Your task to perform on an android device: search for starred emails in the gmail app Image 0: 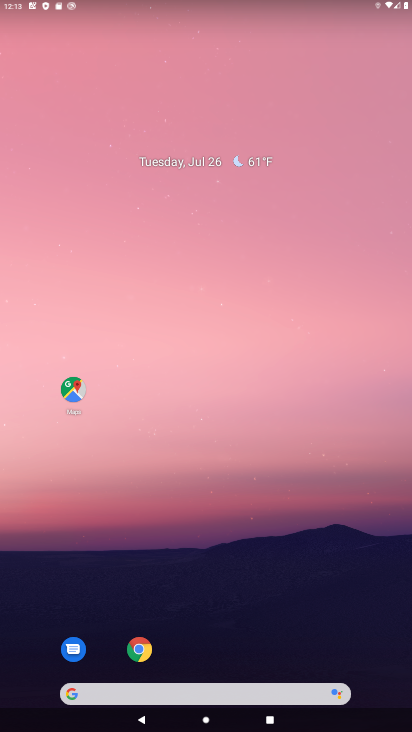
Step 0: drag from (373, 697) to (315, 83)
Your task to perform on an android device: search for starred emails in the gmail app Image 1: 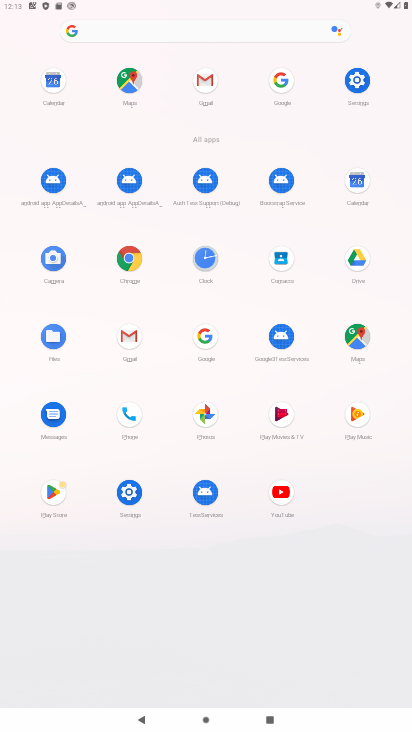
Step 1: click (212, 82)
Your task to perform on an android device: search for starred emails in the gmail app Image 2: 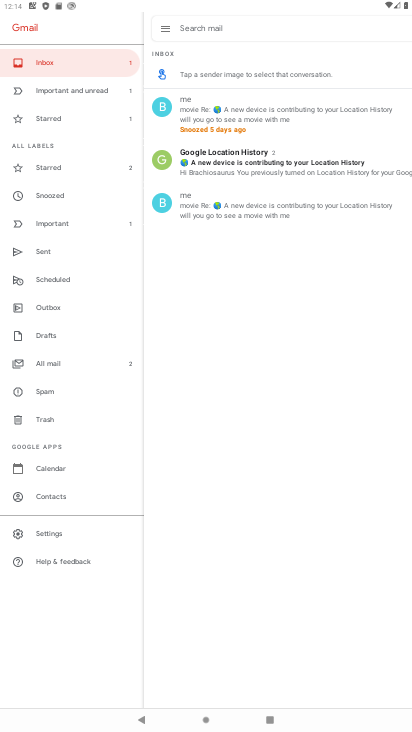
Step 2: click (46, 171)
Your task to perform on an android device: search for starred emails in the gmail app Image 3: 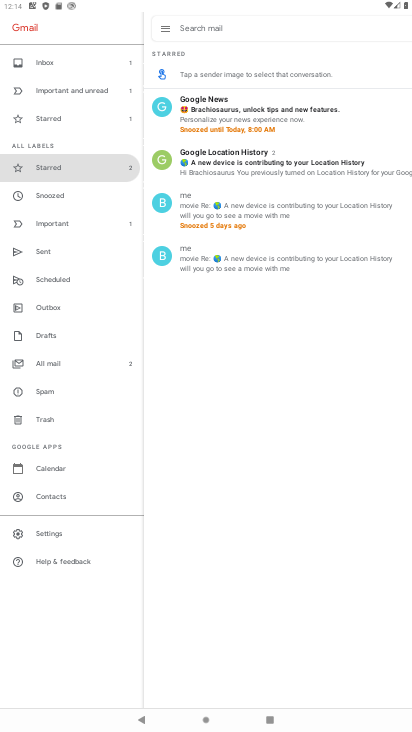
Step 3: task complete